Your task to perform on an android device: Search for "apple airpods pro" on ebay, select the first entry, add it to the cart, then select checkout. Image 0: 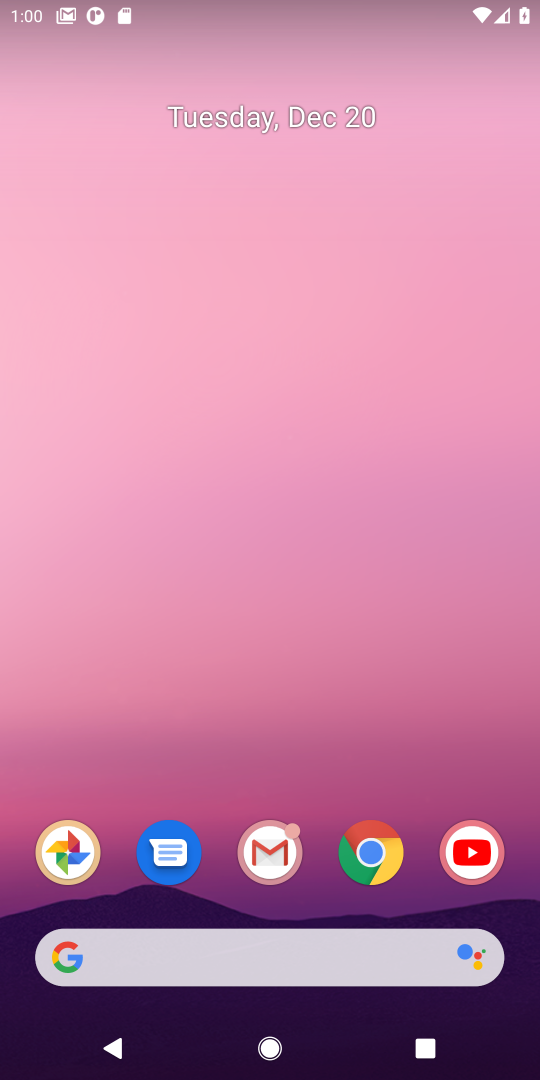
Step 0: click (366, 852)
Your task to perform on an android device: Search for "apple airpods pro" on ebay, select the first entry, add it to the cart, then select checkout. Image 1: 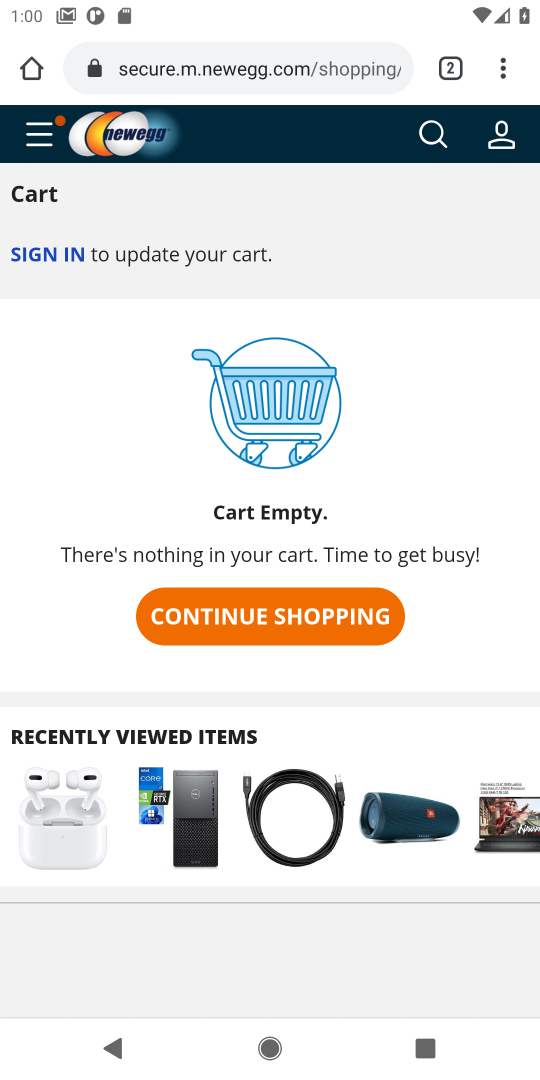
Step 1: click (157, 79)
Your task to perform on an android device: Search for "apple airpods pro" on ebay, select the first entry, add it to the cart, then select checkout. Image 2: 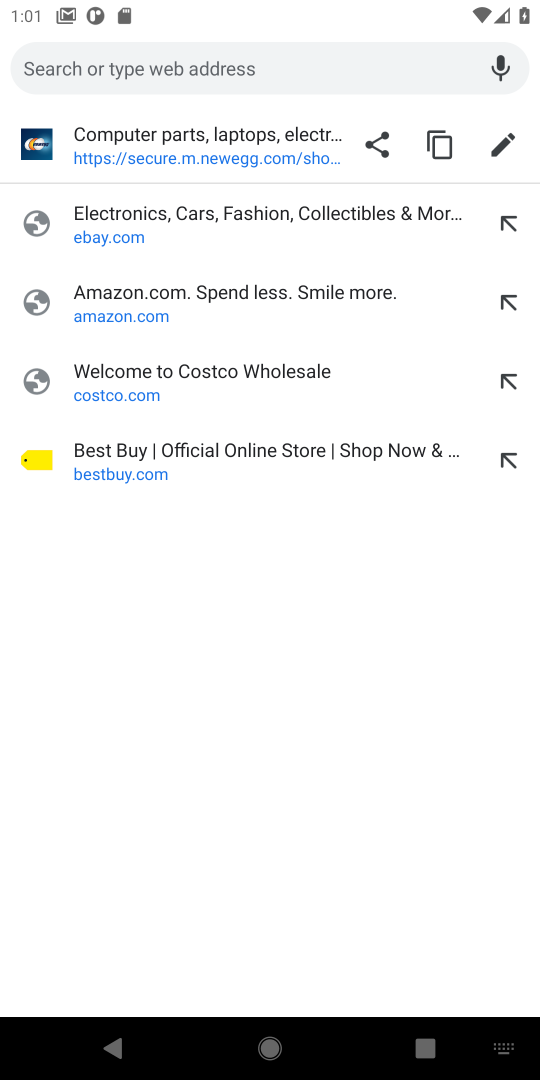
Step 2: click (111, 226)
Your task to perform on an android device: Search for "apple airpods pro" on ebay, select the first entry, add it to the cart, then select checkout. Image 3: 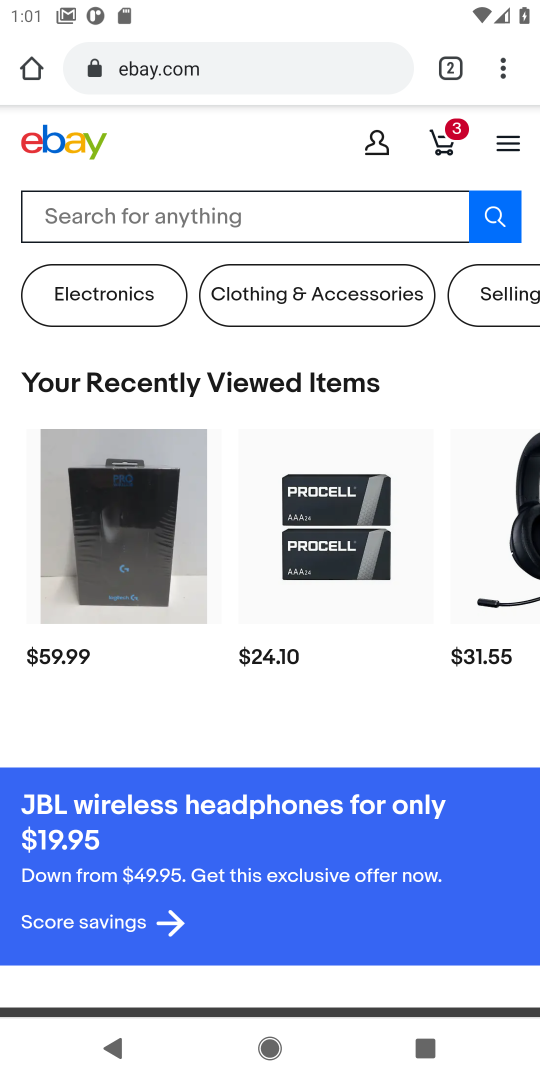
Step 3: click (61, 217)
Your task to perform on an android device: Search for "apple airpods pro" on ebay, select the first entry, add it to the cart, then select checkout. Image 4: 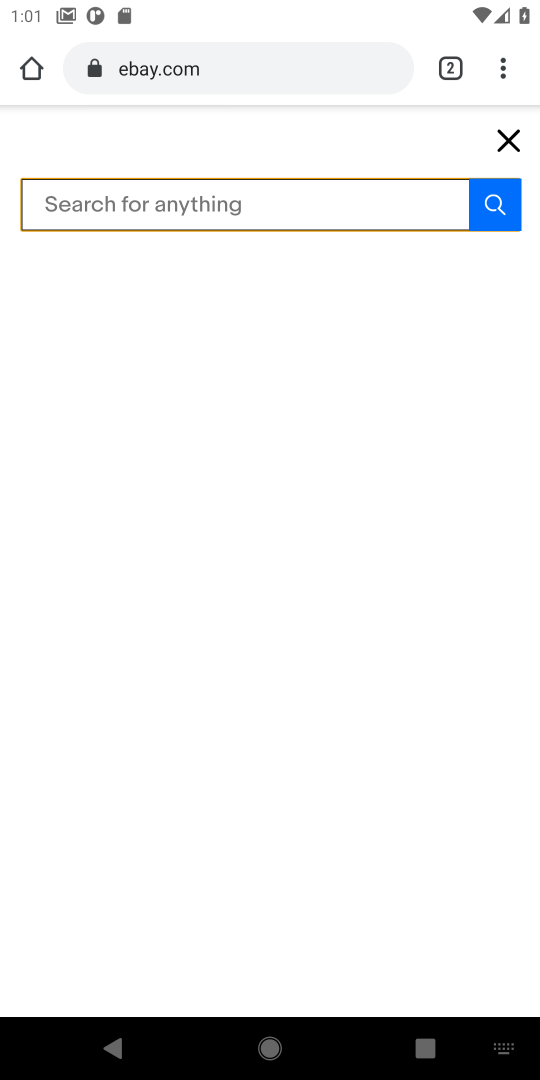
Step 4: type "apple airpods pro"
Your task to perform on an android device: Search for "apple airpods pro" on ebay, select the first entry, add it to the cart, then select checkout. Image 5: 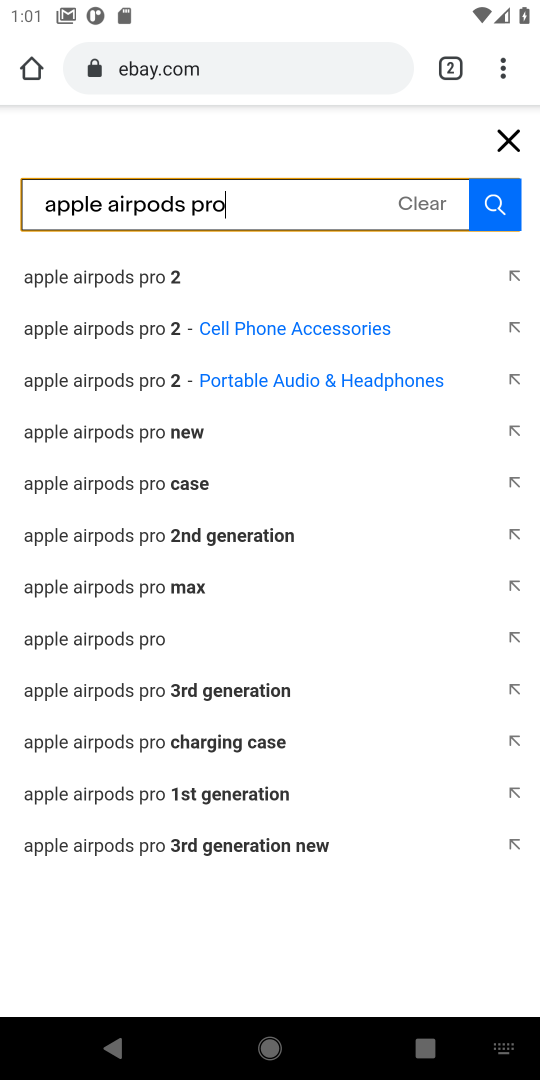
Step 5: click (109, 643)
Your task to perform on an android device: Search for "apple airpods pro" on ebay, select the first entry, add it to the cart, then select checkout. Image 6: 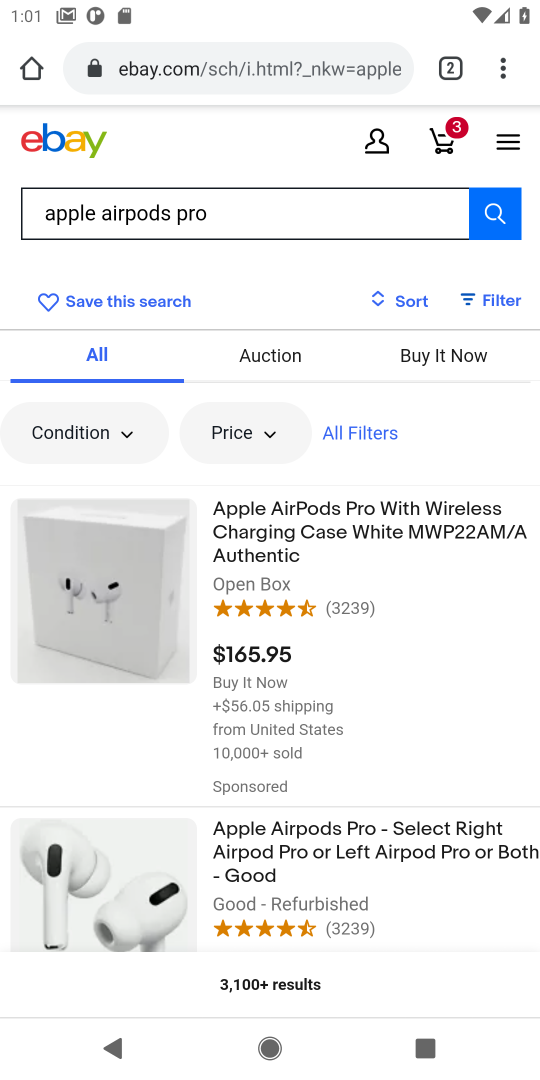
Step 6: click (296, 542)
Your task to perform on an android device: Search for "apple airpods pro" on ebay, select the first entry, add it to the cart, then select checkout. Image 7: 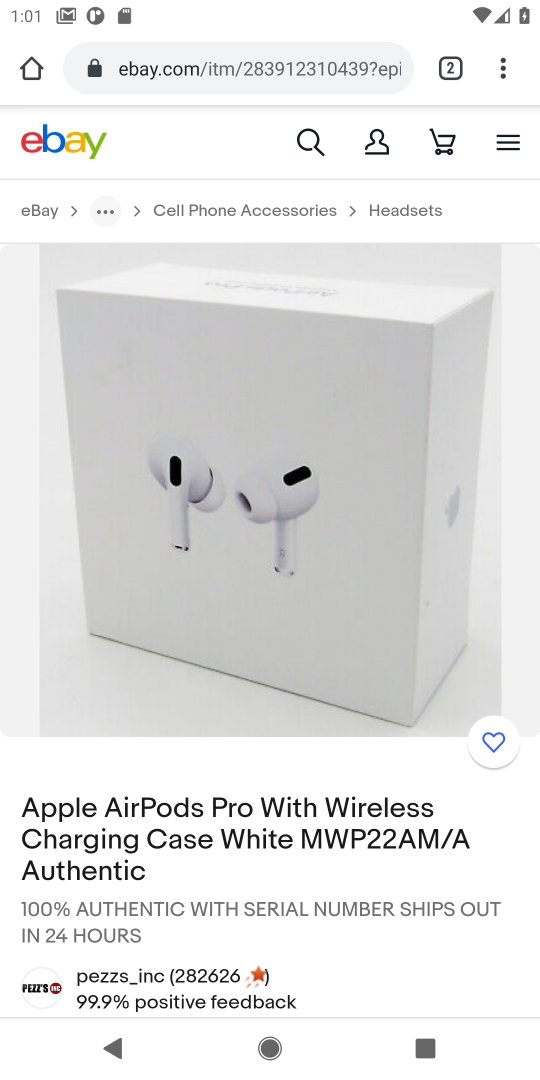
Step 7: drag from (237, 805) to (269, 468)
Your task to perform on an android device: Search for "apple airpods pro" on ebay, select the first entry, add it to the cart, then select checkout. Image 8: 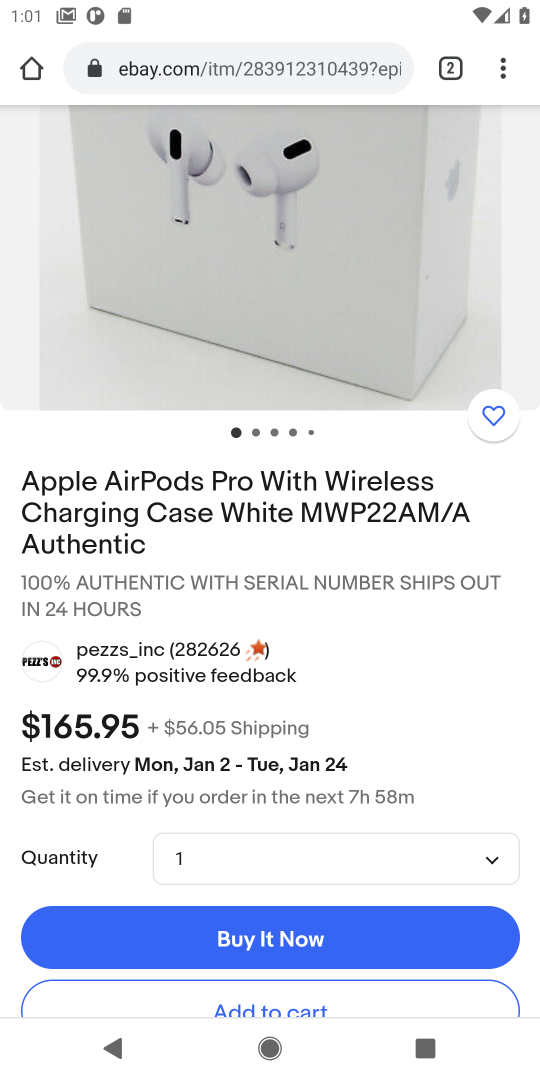
Step 8: drag from (263, 846) to (283, 596)
Your task to perform on an android device: Search for "apple airpods pro" on ebay, select the first entry, add it to the cart, then select checkout. Image 9: 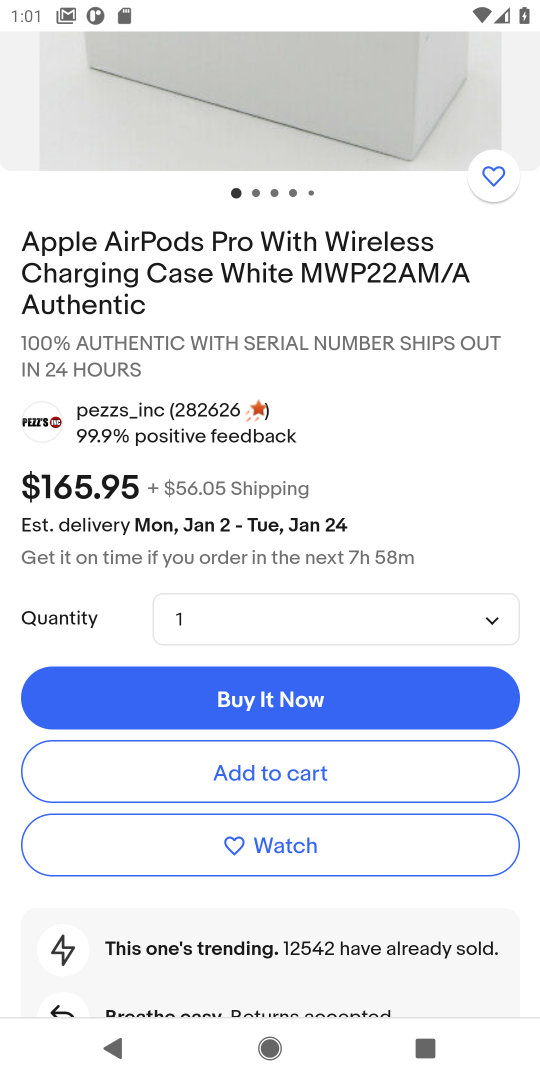
Step 9: click (237, 783)
Your task to perform on an android device: Search for "apple airpods pro" on ebay, select the first entry, add it to the cart, then select checkout. Image 10: 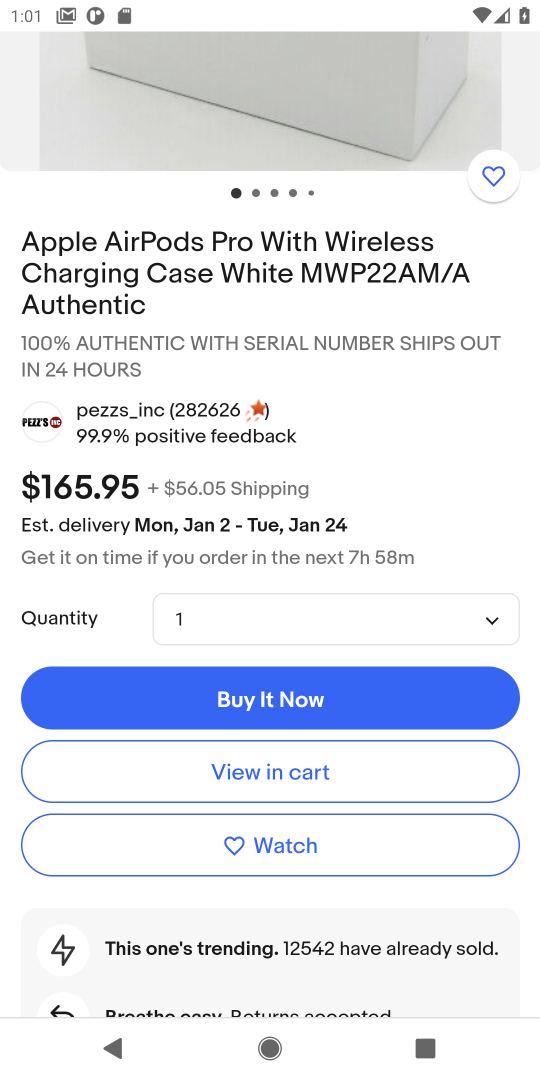
Step 10: click (238, 783)
Your task to perform on an android device: Search for "apple airpods pro" on ebay, select the first entry, add it to the cart, then select checkout. Image 11: 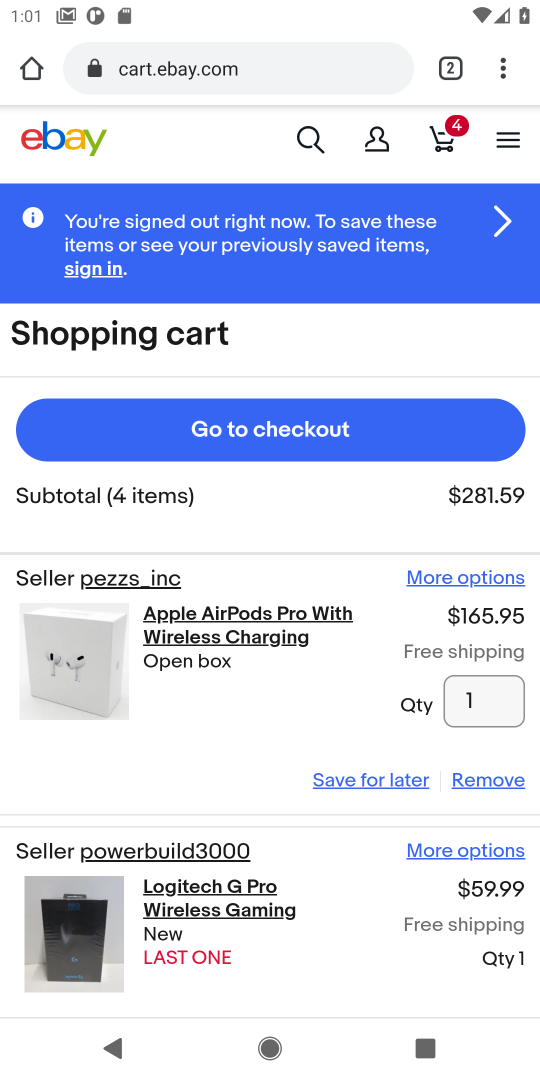
Step 11: click (237, 438)
Your task to perform on an android device: Search for "apple airpods pro" on ebay, select the first entry, add it to the cart, then select checkout. Image 12: 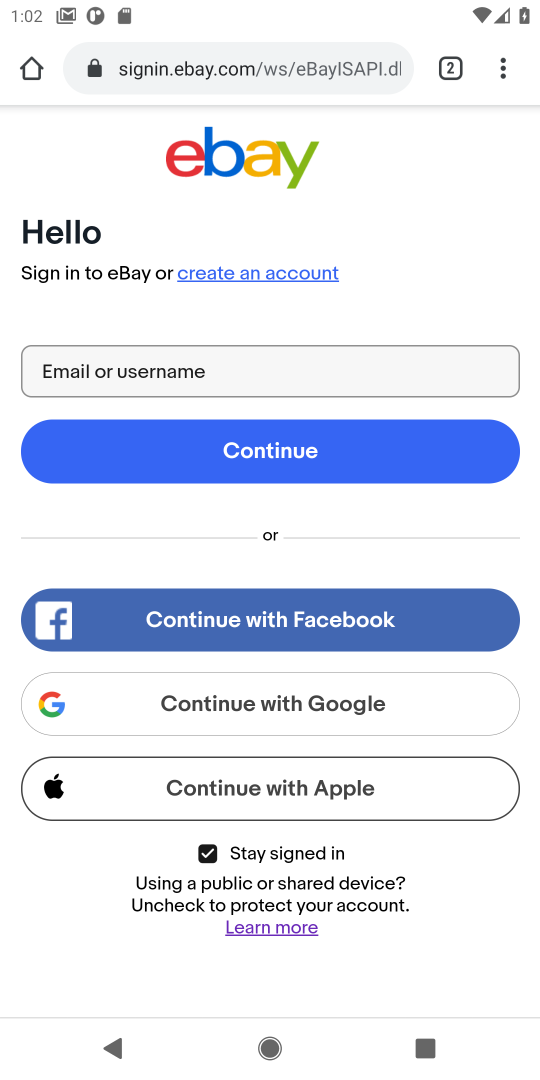
Step 12: task complete